Your task to perform on an android device: Open internet settings Image 0: 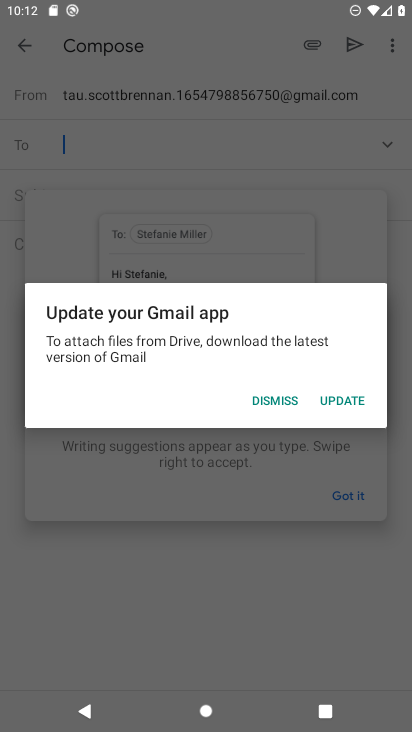
Step 0: press home button
Your task to perform on an android device: Open internet settings Image 1: 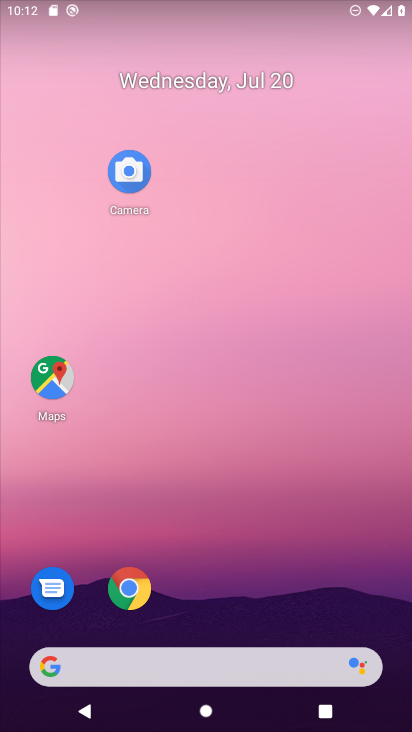
Step 1: drag from (250, 633) to (299, 188)
Your task to perform on an android device: Open internet settings Image 2: 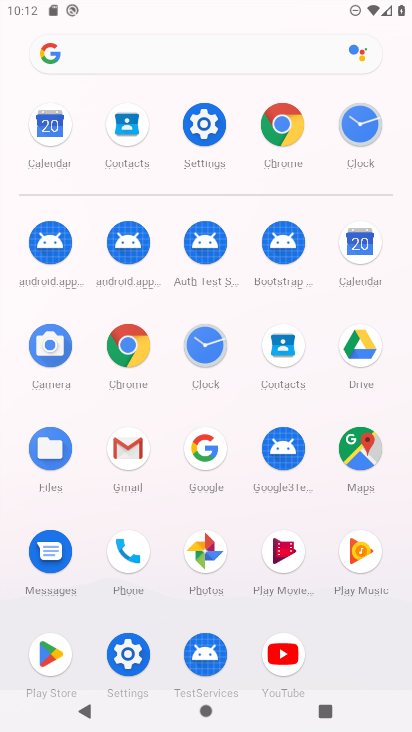
Step 2: click (204, 130)
Your task to perform on an android device: Open internet settings Image 3: 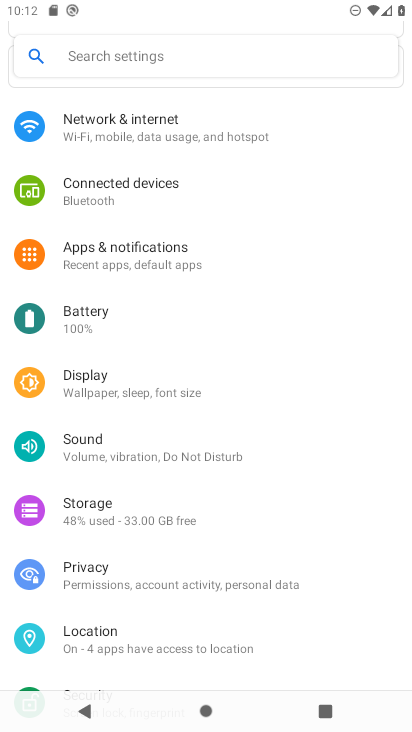
Step 3: click (130, 132)
Your task to perform on an android device: Open internet settings Image 4: 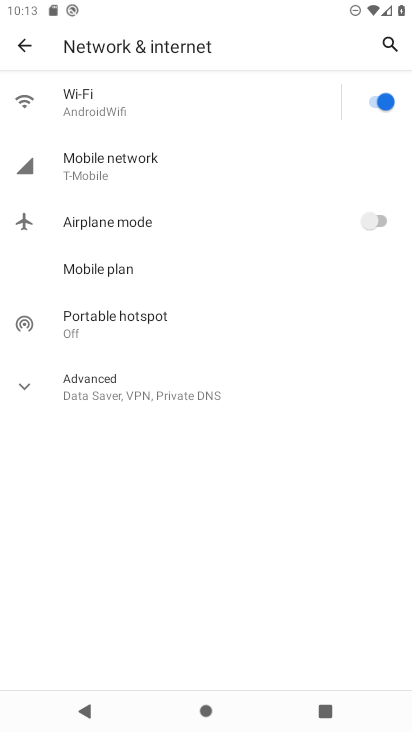
Step 4: task complete